Your task to perform on an android device: Clear the cart on amazon.com. Add macbook pro 13 inch to the cart on amazon.com Image 0: 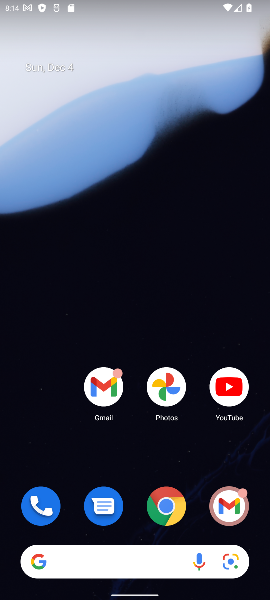
Step 0: click (165, 500)
Your task to perform on an android device: Clear the cart on amazon.com. Add macbook pro 13 inch to the cart on amazon.com Image 1: 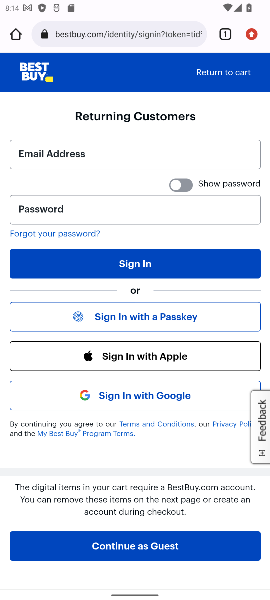
Step 1: click (92, 37)
Your task to perform on an android device: Clear the cart on amazon.com. Add macbook pro 13 inch to the cart on amazon.com Image 2: 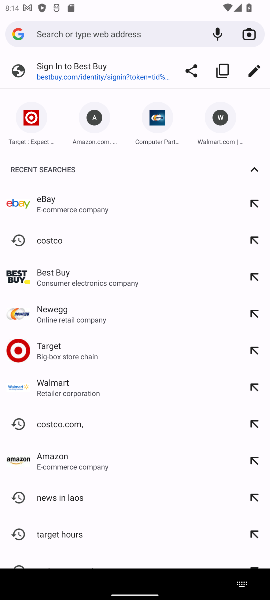
Step 2: click (83, 468)
Your task to perform on an android device: Clear the cart on amazon.com. Add macbook pro 13 inch to the cart on amazon.com Image 3: 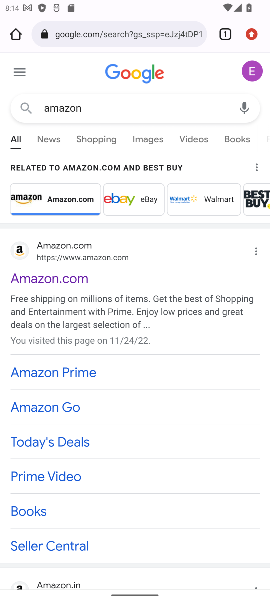
Step 3: click (26, 269)
Your task to perform on an android device: Clear the cart on amazon.com. Add macbook pro 13 inch to the cart on amazon.com Image 4: 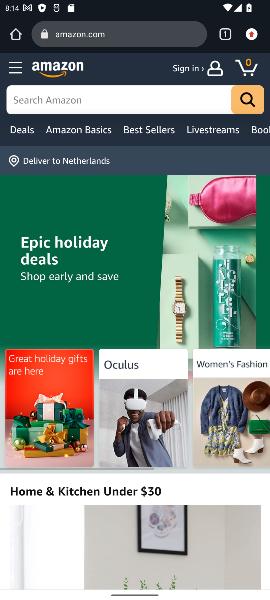
Step 4: click (245, 59)
Your task to perform on an android device: Clear the cart on amazon.com. Add macbook pro 13 inch to the cart on amazon.com Image 5: 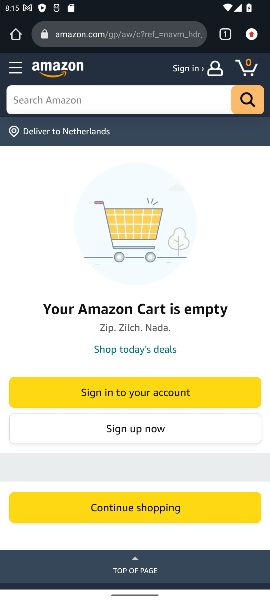
Step 5: click (88, 93)
Your task to perform on an android device: Clear the cart on amazon.com. Add macbook pro 13 inch to the cart on amazon.com Image 6: 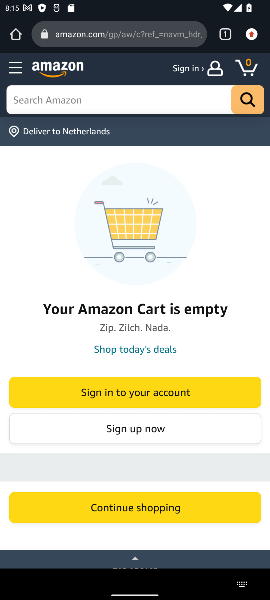
Step 6: type "macbook pro 13 inch"
Your task to perform on an android device: Clear the cart on amazon.com. Add macbook pro 13 inch to the cart on amazon.com Image 7: 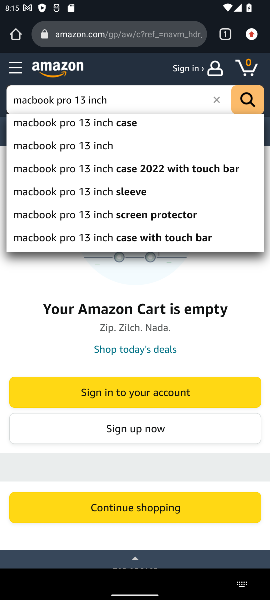
Step 7: click (251, 105)
Your task to perform on an android device: Clear the cart on amazon.com. Add macbook pro 13 inch to the cart on amazon.com Image 8: 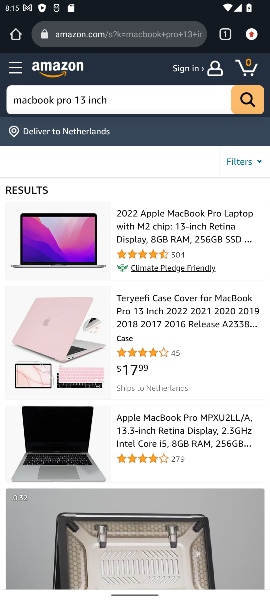
Step 8: click (172, 228)
Your task to perform on an android device: Clear the cart on amazon.com. Add macbook pro 13 inch to the cart on amazon.com Image 9: 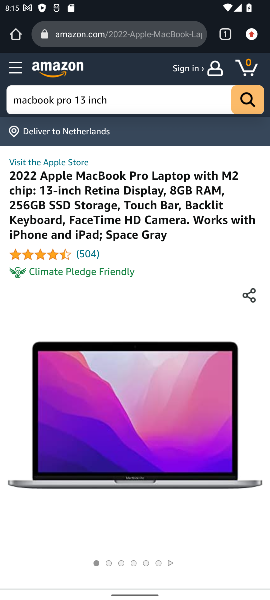
Step 9: drag from (90, 522) to (91, 202)
Your task to perform on an android device: Clear the cart on amazon.com. Add macbook pro 13 inch to the cart on amazon.com Image 10: 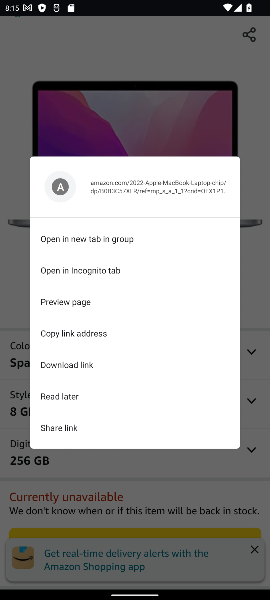
Step 10: click (144, 495)
Your task to perform on an android device: Clear the cart on amazon.com. Add macbook pro 13 inch to the cart on amazon.com Image 11: 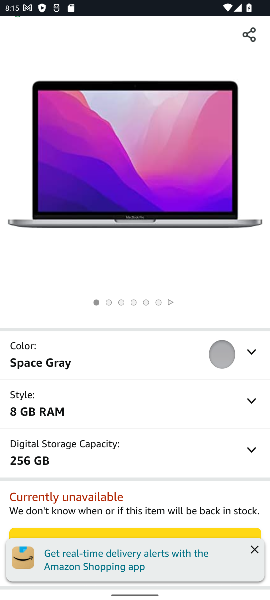
Step 11: press back button
Your task to perform on an android device: Clear the cart on amazon.com. Add macbook pro 13 inch to the cart on amazon.com Image 12: 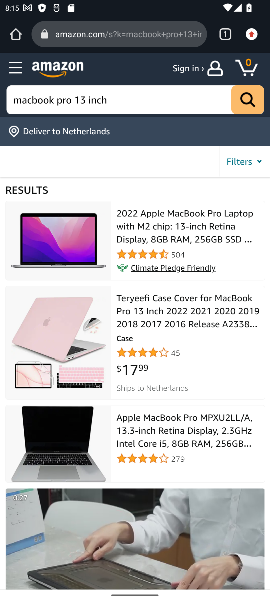
Step 12: drag from (175, 405) to (128, 187)
Your task to perform on an android device: Clear the cart on amazon.com. Add macbook pro 13 inch to the cart on amazon.com Image 13: 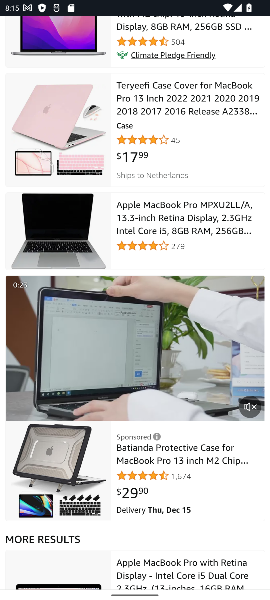
Step 13: drag from (167, 543) to (144, 239)
Your task to perform on an android device: Clear the cart on amazon.com. Add macbook pro 13 inch to the cart on amazon.com Image 14: 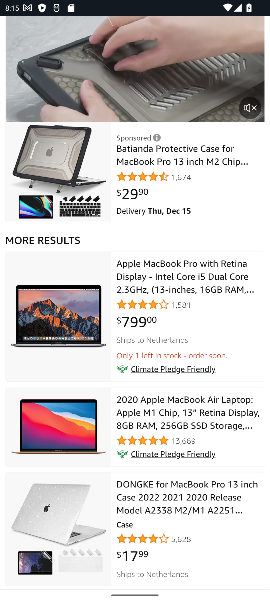
Step 14: click (190, 284)
Your task to perform on an android device: Clear the cart on amazon.com. Add macbook pro 13 inch to the cart on amazon.com Image 15: 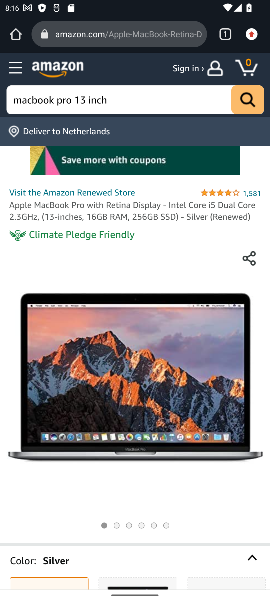
Step 15: drag from (60, 499) to (82, 185)
Your task to perform on an android device: Clear the cart on amazon.com. Add macbook pro 13 inch to the cart on amazon.com Image 16: 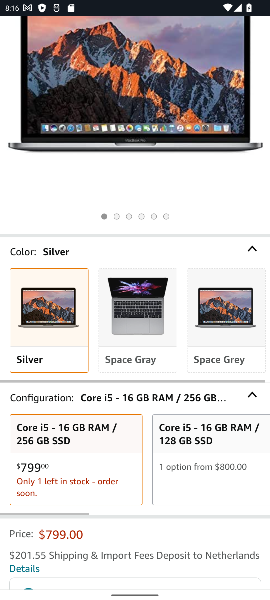
Step 16: drag from (144, 539) to (139, 156)
Your task to perform on an android device: Clear the cart on amazon.com. Add macbook pro 13 inch to the cart on amazon.com Image 17: 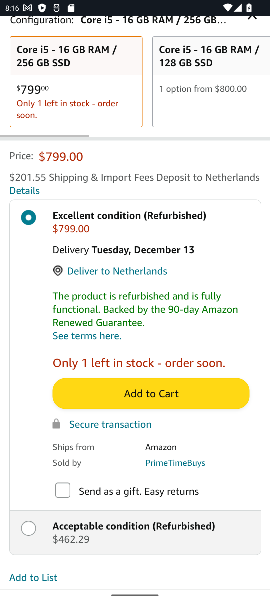
Step 17: click (101, 402)
Your task to perform on an android device: Clear the cart on amazon.com. Add macbook pro 13 inch to the cart on amazon.com Image 18: 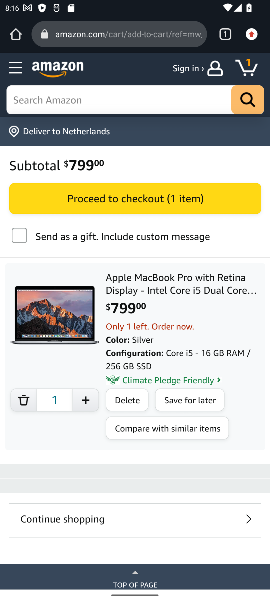
Step 18: task complete